Your task to perform on an android device: open chrome privacy settings Image 0: 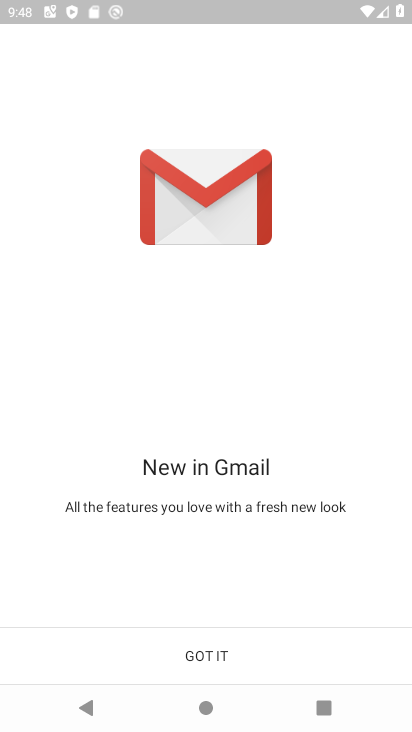
Step 0: press home button
Your task to perform on an android device: open chrome privacy settings Image 1: 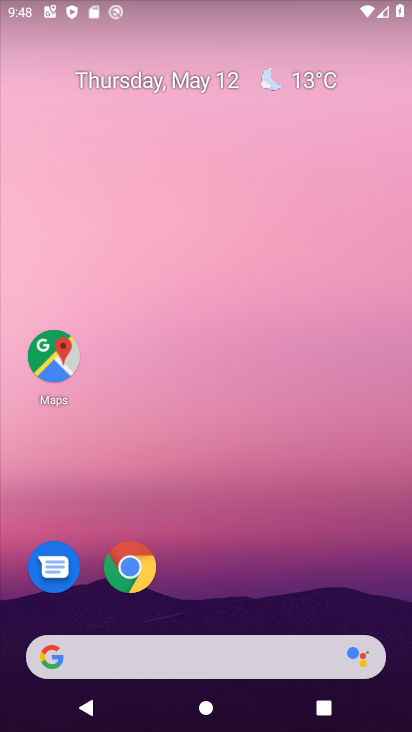
Step 1: drag from (276, 593) to (286, 164)
Your task to perform on an android device: open chrome privacy settings Image 2: 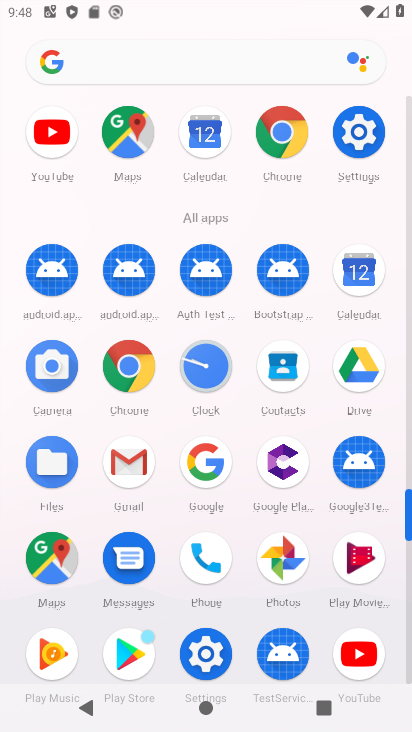
Step 2: click (359, 144)
Your task to perform on an android device: open chrome privacy settings Image 3: 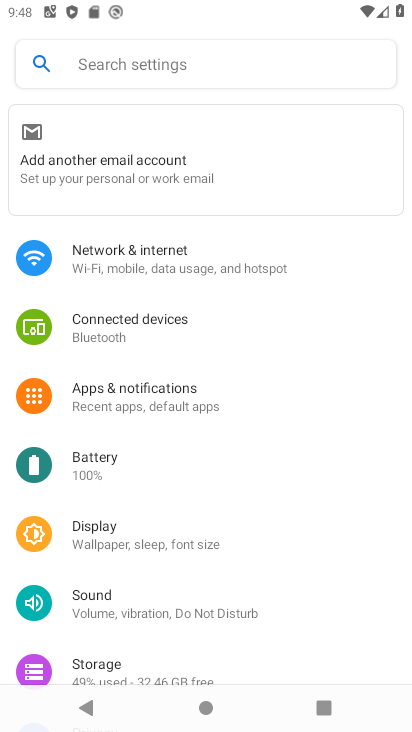
Step 3: drag from (205, 510) to (234, 242)
Your task to perform on an android device: open chrome privacy settings Image 4: 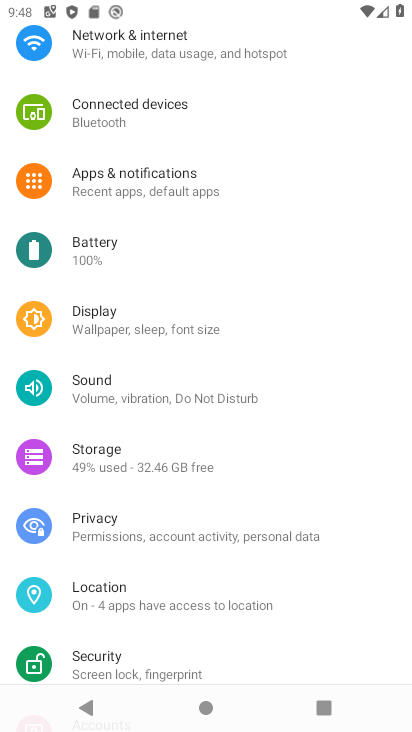
Step 4: click (147, 541)
Your task to perform on an android device: open chrome privacy settings Image 5: 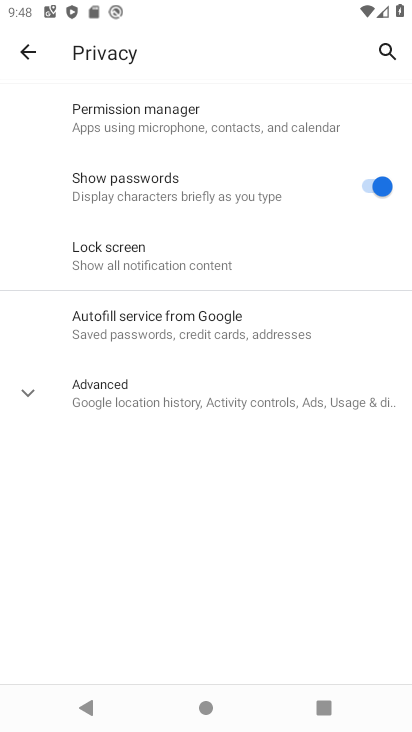
Step 5: task complete